Your task to perform on an android device: open app "YouTube Kids" Image 0: 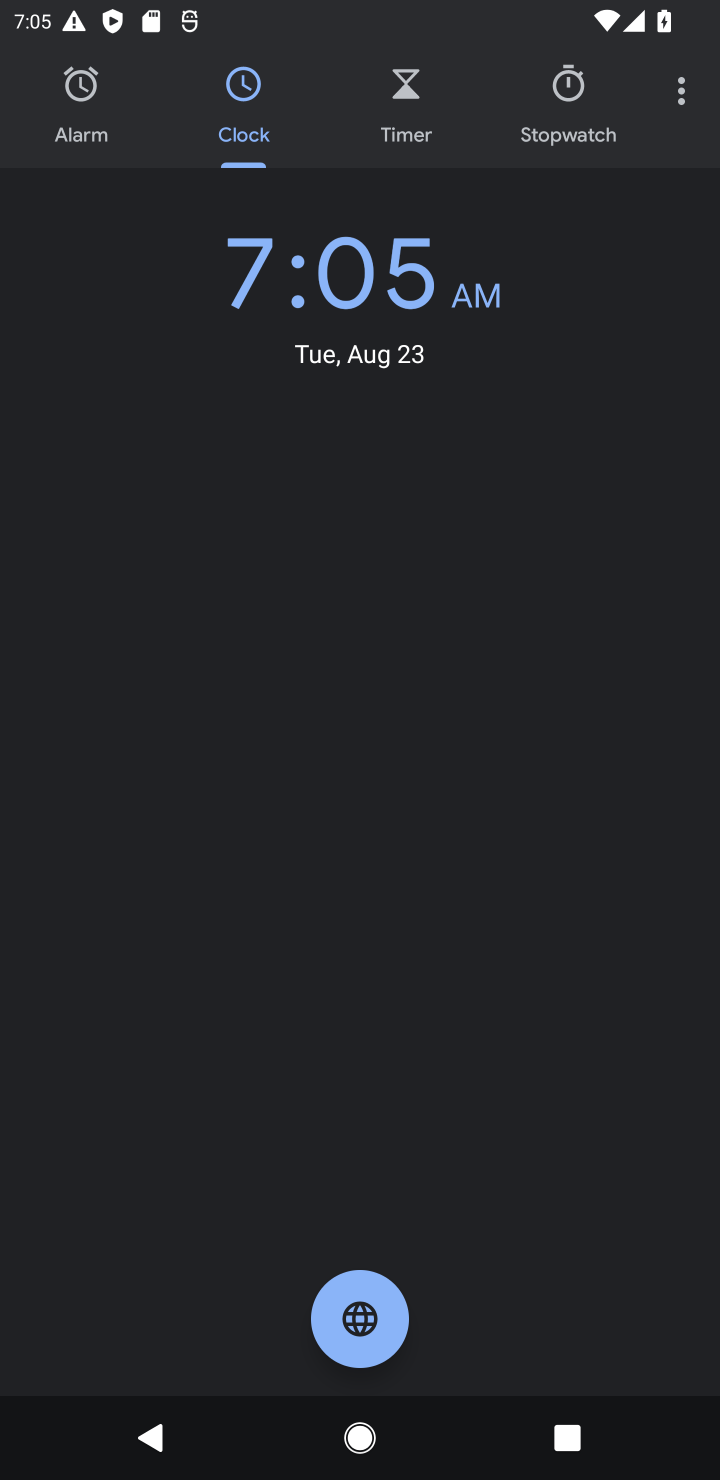
Step 0: press home button
Your task to perform on an android device: open app "YouTube Kids" Image 1: 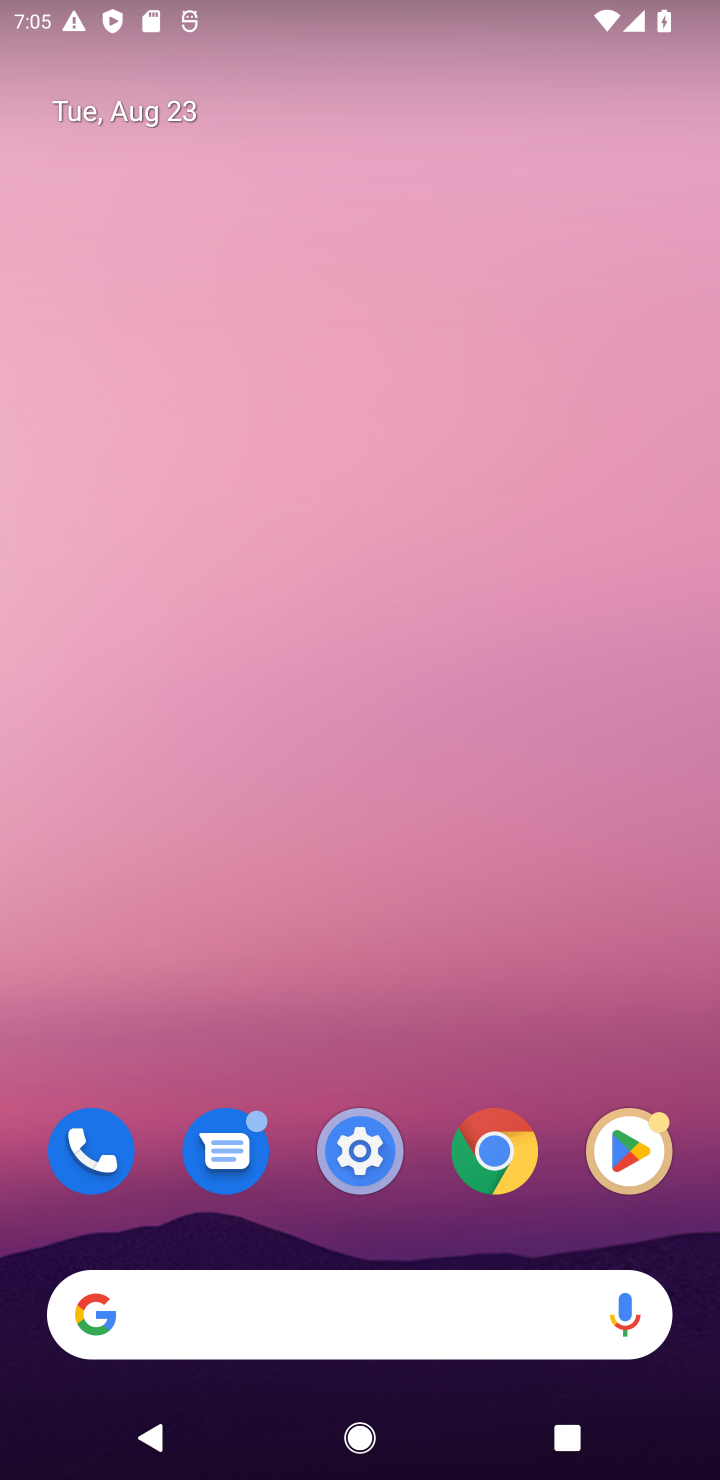
Step 1: click (621, 1141)
Your task to perform on an android device: open app "YouTube Kids" Image 2: 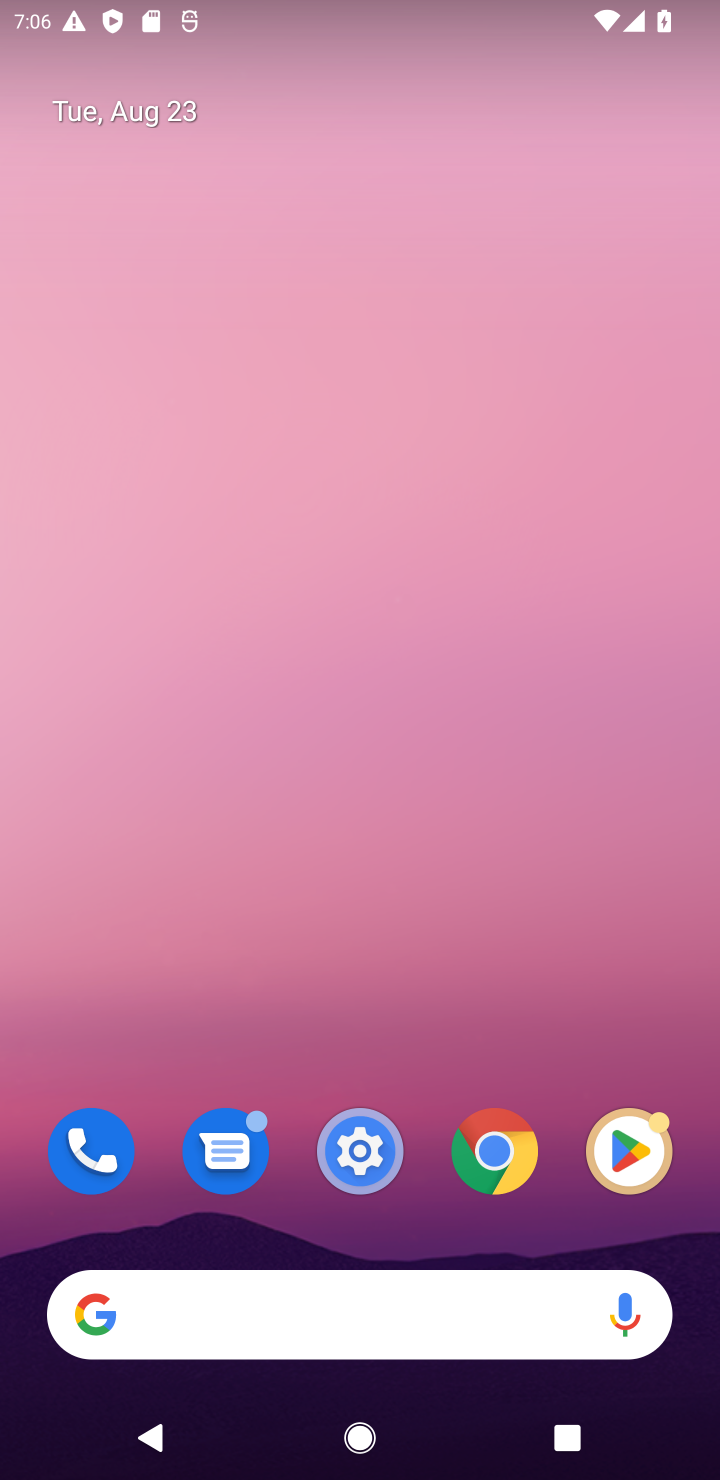
Step 2: click (623, 1138)
Your task to perform on an android device: open app "YouTube Kids" Image 3: 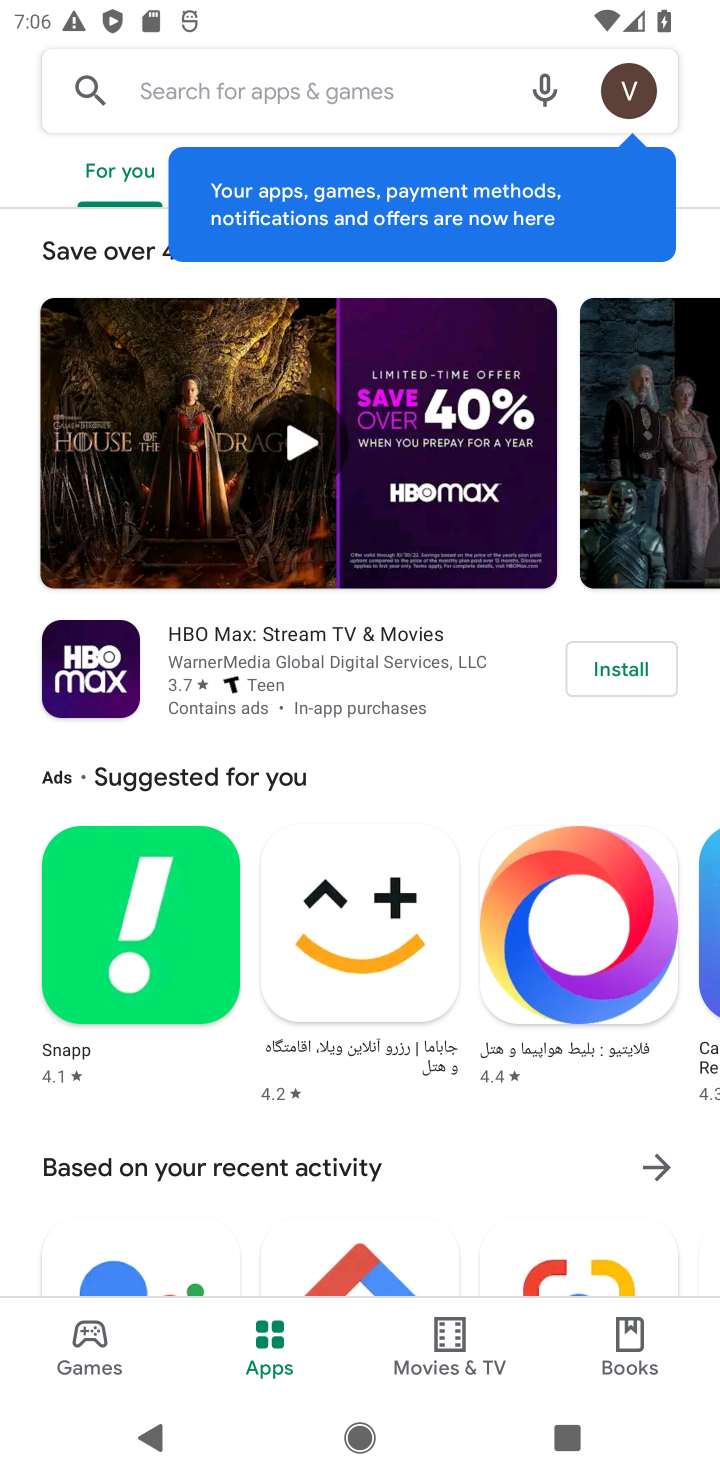
Step 3: click (225, 77)
Your task to perform on an android device: open app "YouTube Kids" Image 4: 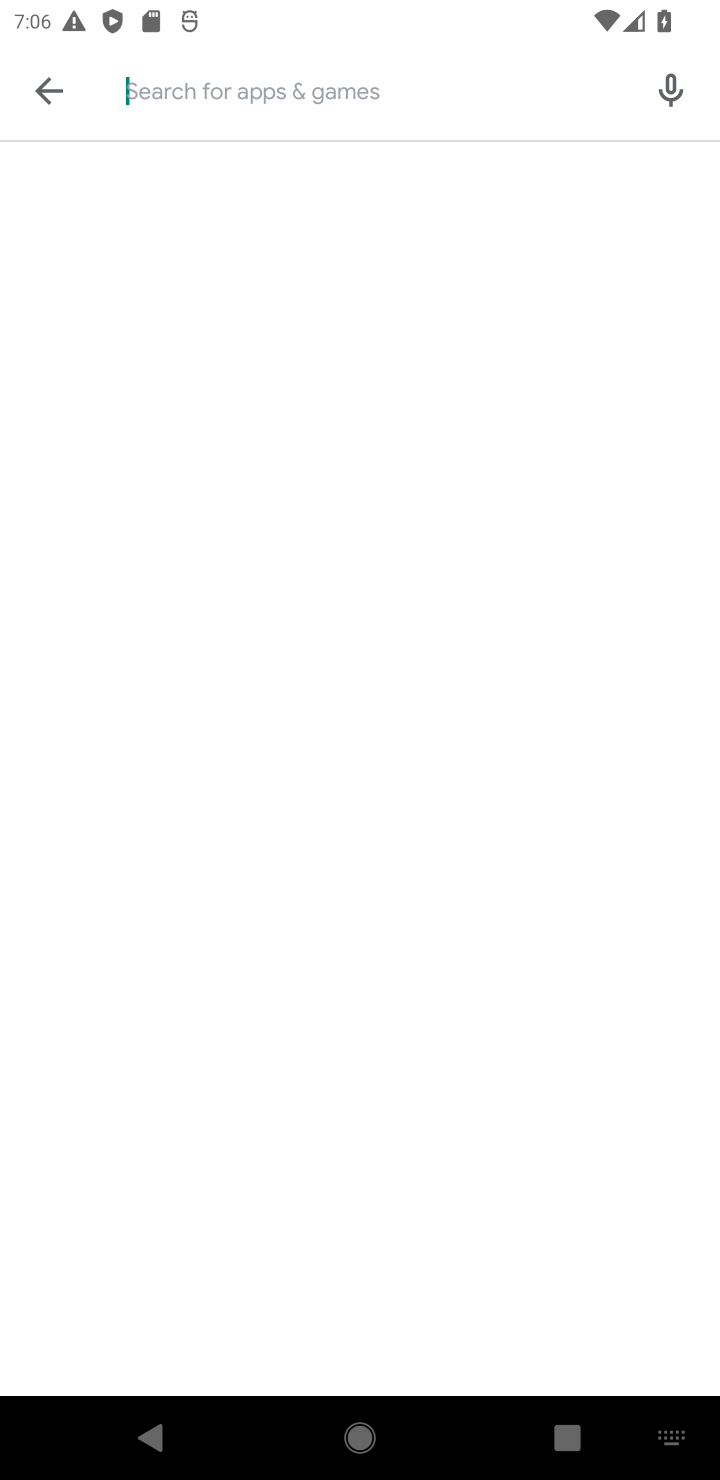
Step 4: type "YouTube Kids"
Your task to perform on an android device: open app "YouTube Kids" Image 5: 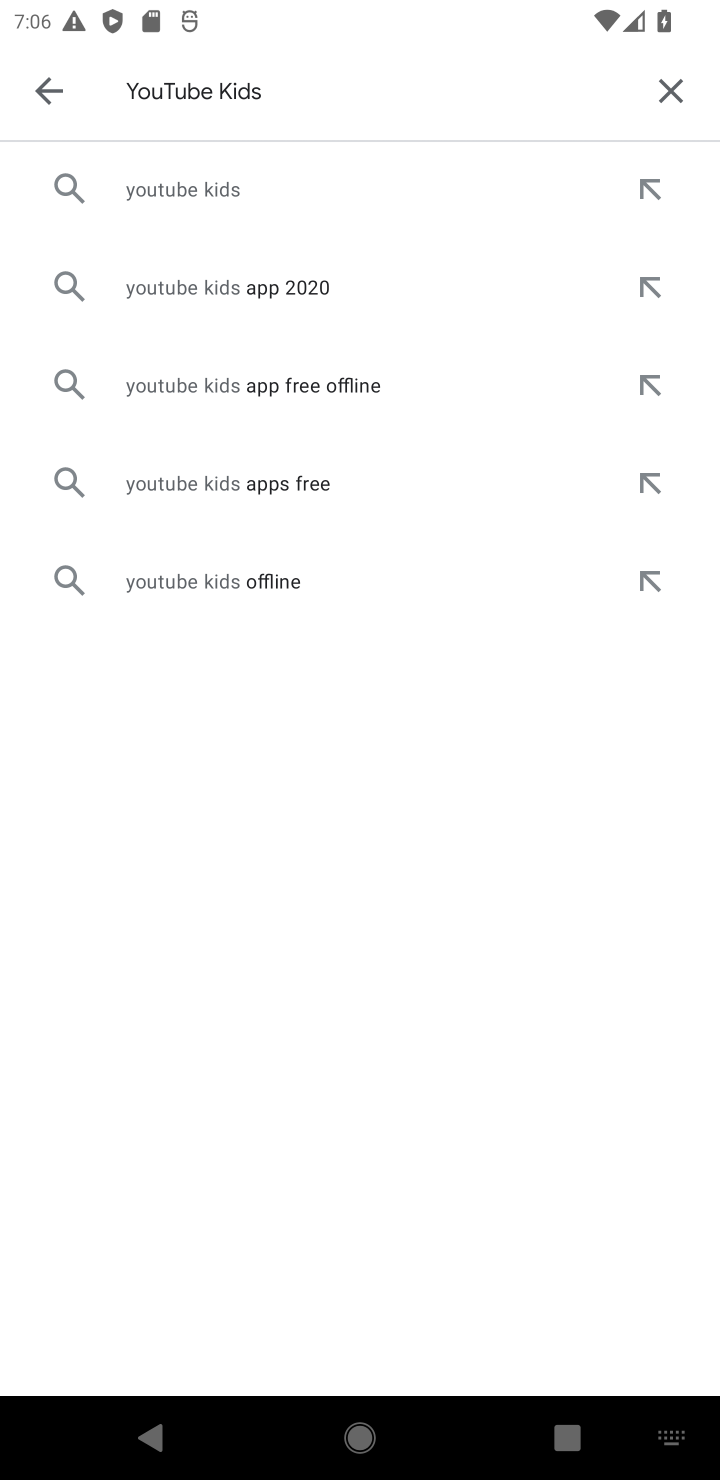
Step 5: click (220, 174)
Your task to perform on an android device: open app "YouTube Kids" Image 6: 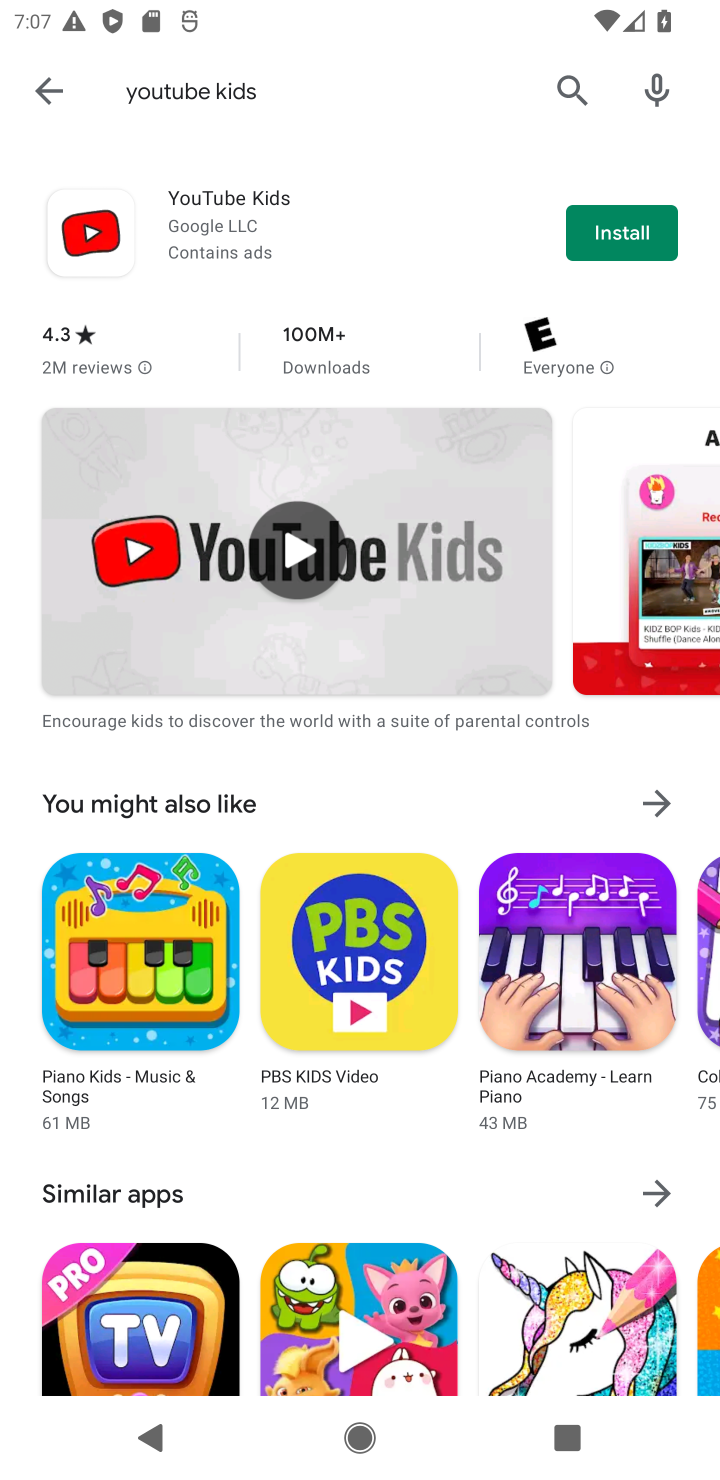
Step 6: task complete